Your task to perform on an android device: create a new album in the google photos Image 0: 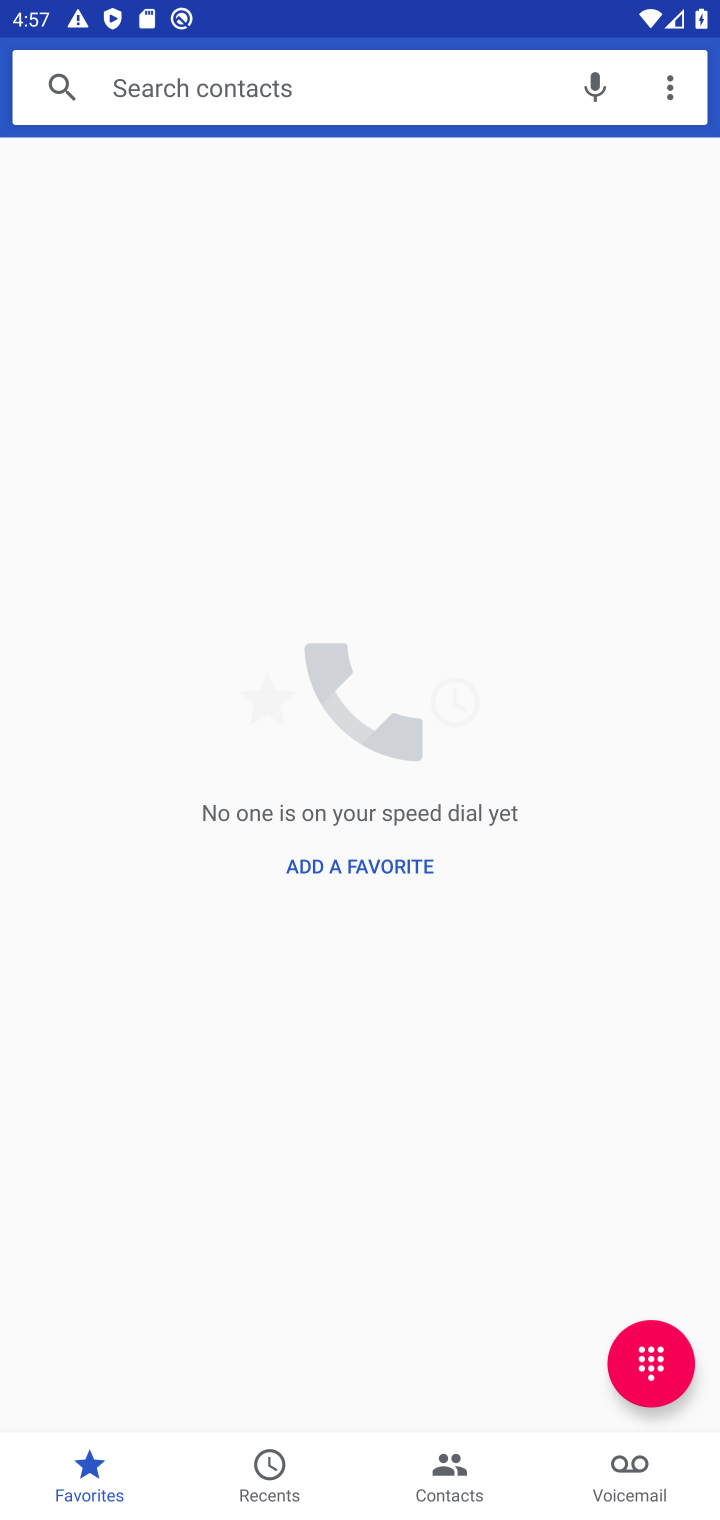
Step 0: press home button
Your task to perform on an android device: create a new album in the google photos Image 1: 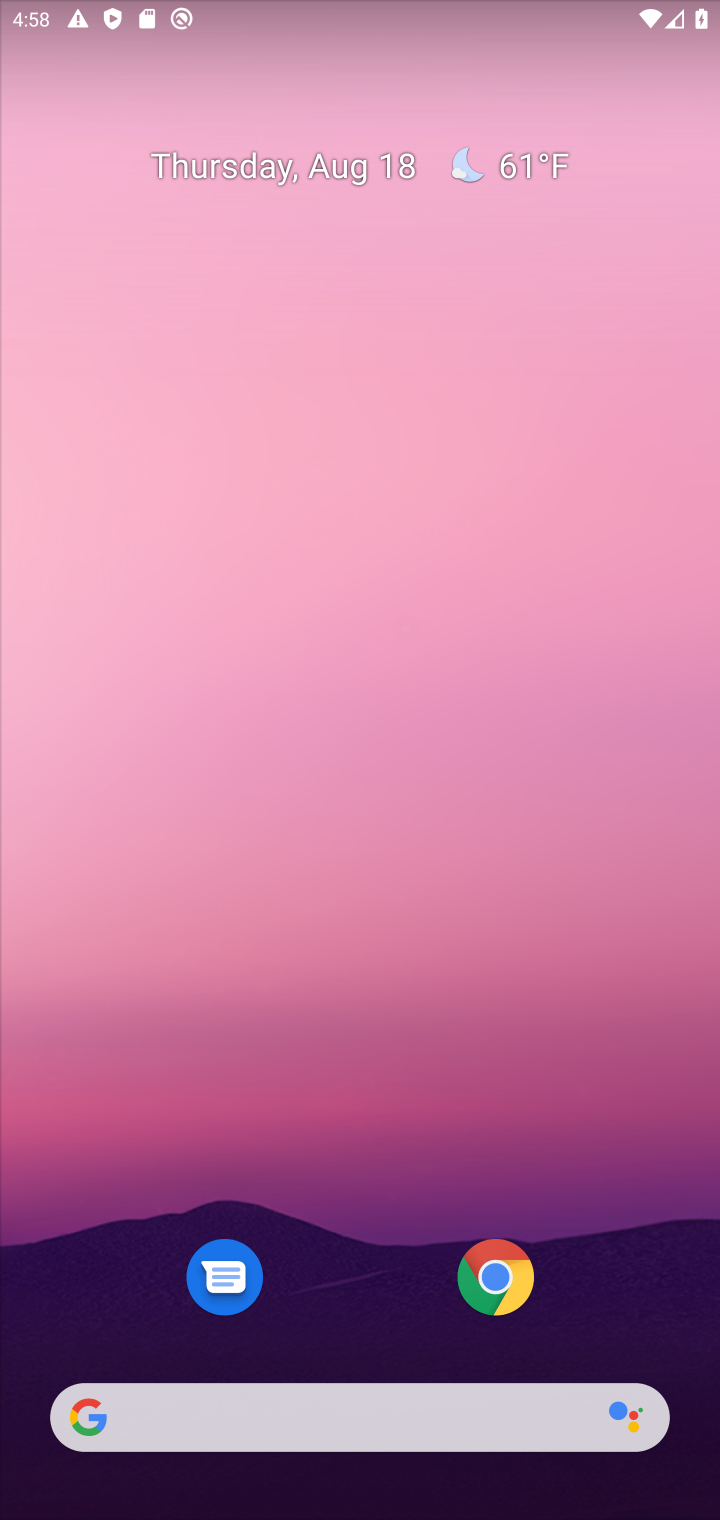
Step 1: task complete